Your task to perform on an android device: change the clock display to show seconds Image 0: 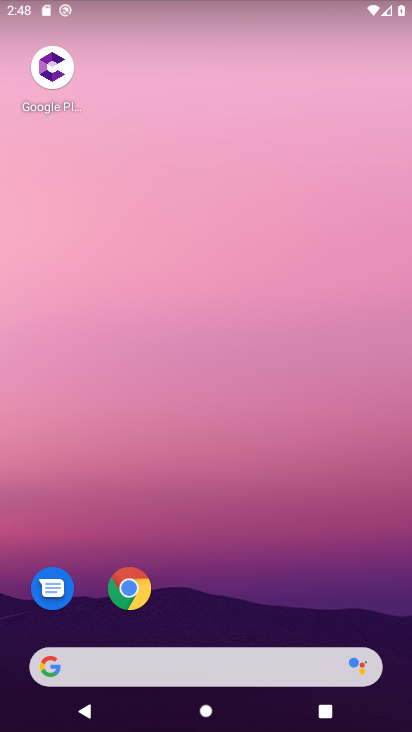
Step 0: drag from (242, 576) to (110, 172)
Your task to perform on an android device: change the clock display to show seconds Image 1: 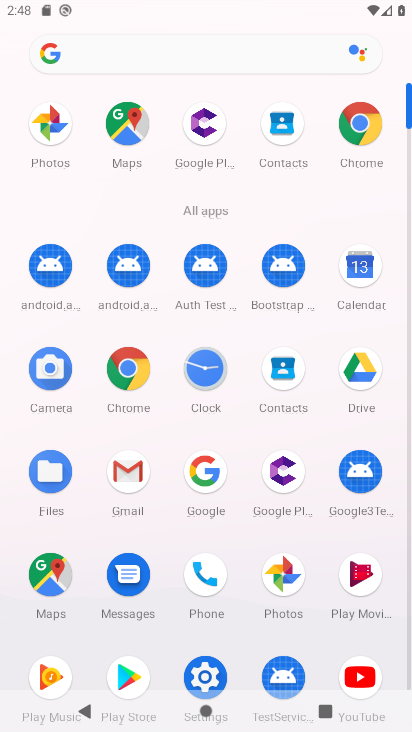
Step 1: click (210, 378)
Your task to perform on an android device: change the clock display to show seconds Image 2: 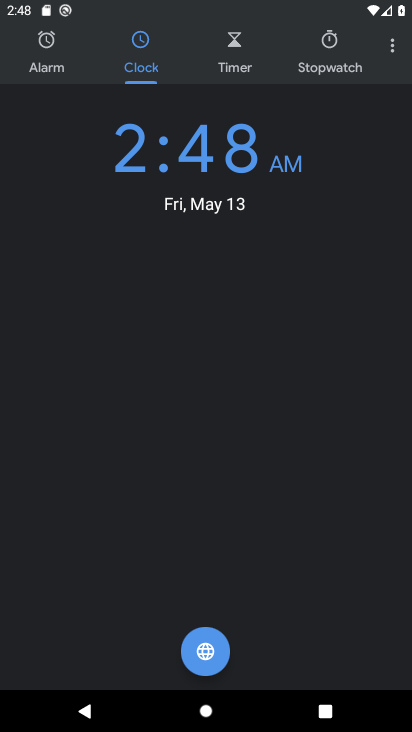
Step 2: click (398, 48)
Your task to perform on an android device: change the clock display to show seconds Image 3: 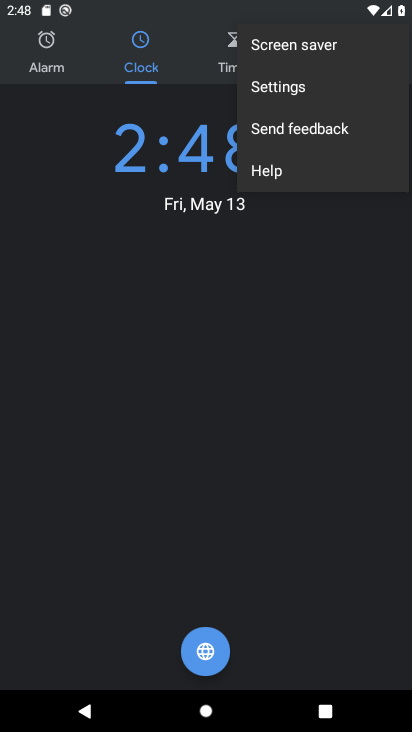
Step 3: click (281, 91)
Your task to perform on an android device: change the clock display to show seconds Image 4: 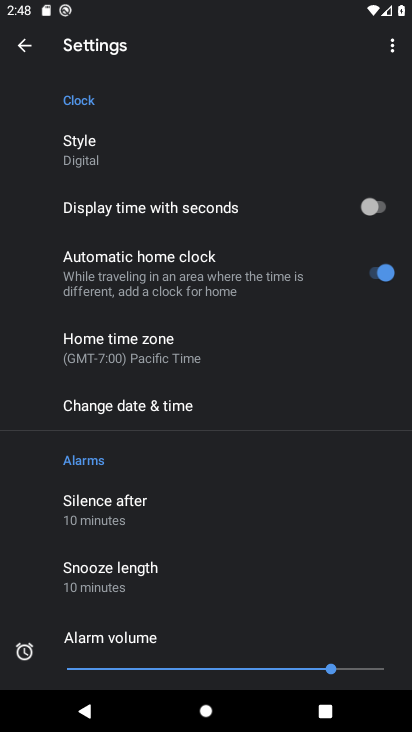
Step 4: click (366, 208)
Your task to perform on an android device: change the clock display to show seconds Image 5: 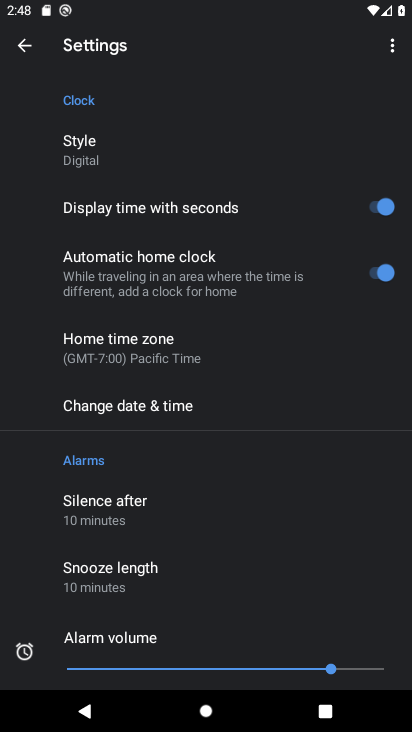
Step 5: task complete